Your task to perform on an android device: open chrome and create a bookmark for the current page Image 0: 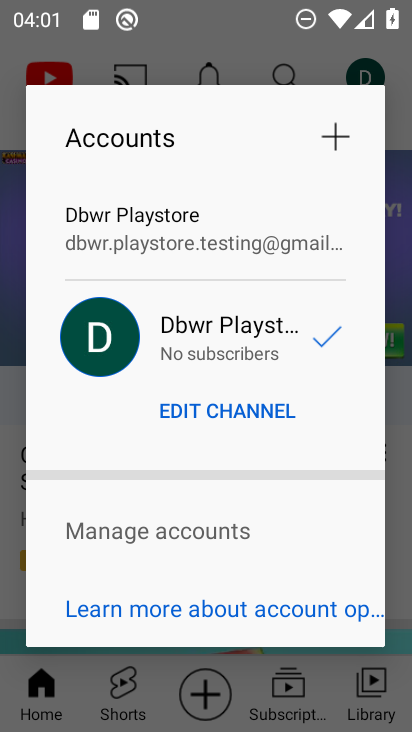
Step 0: press home button
Your task to perform on an android device: open chrome and create a bookmark for the current page Image 1: 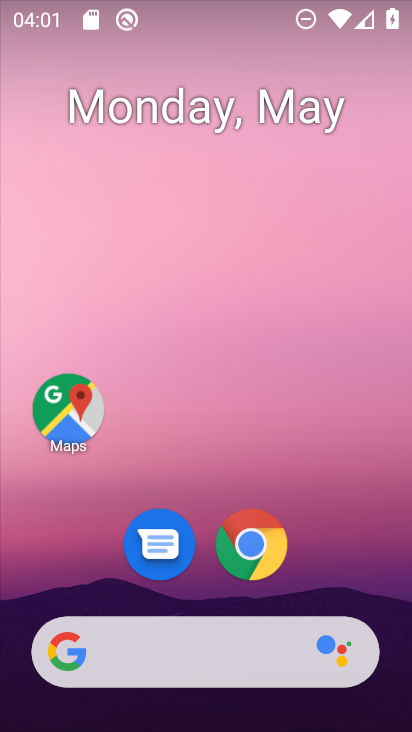
Step 1: drag from (380, 553) to (391, 234)
Your task to perform on an android device: open chrome and create a bookmark for the current page Image 2: 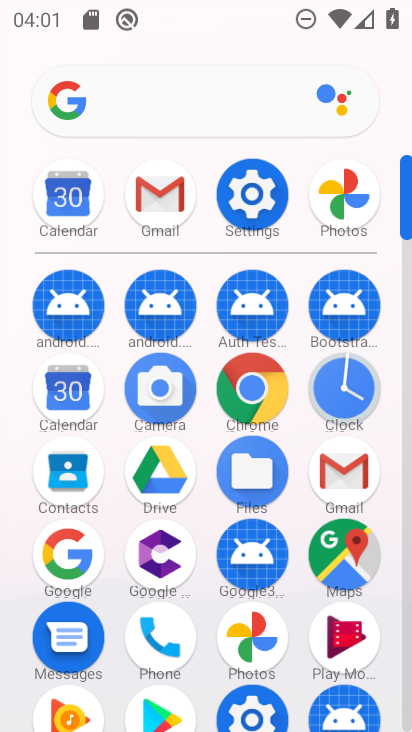
Step 2: click (272, 408)
Your task to perform on an android device: open chrome and create a bookmark for the current page Image 3: 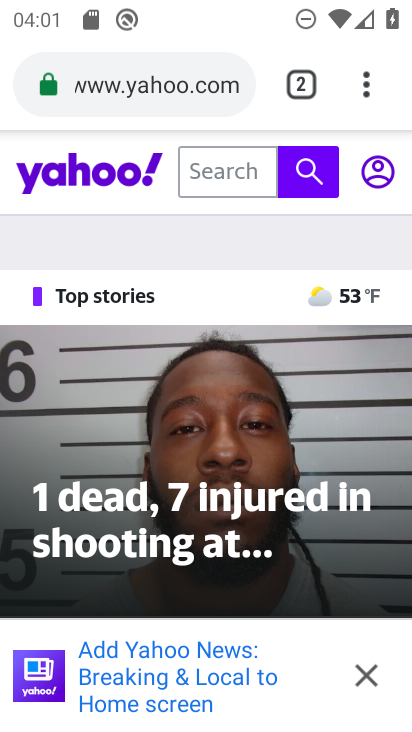
Step 3: click (365, 98)
Your task to perform on an android device: open chrome and create a bookmark for the current page Image 4: 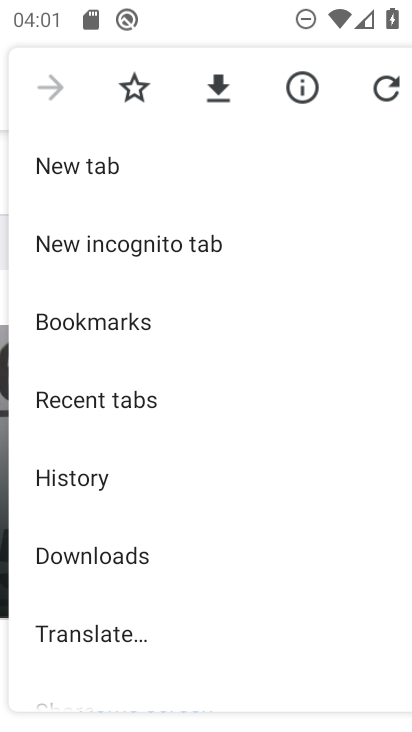
Step 4: click (138, 92)
Your task to perform on an android device: open chrome and create a bookmark for the current page Image 5: 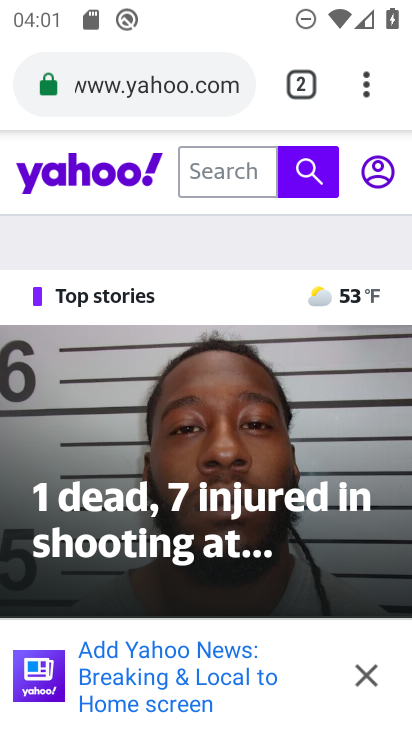
Step 5: task complete